Your task to perform on an android device: toggle sleep mode Image 0: 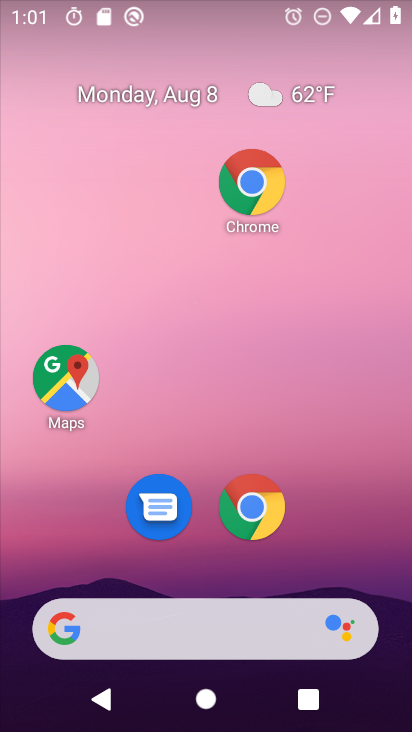
Step 0: drag from (363, 564) to (289, 3)
Your task to perform on an android device: toggle sleep mode Image 1: 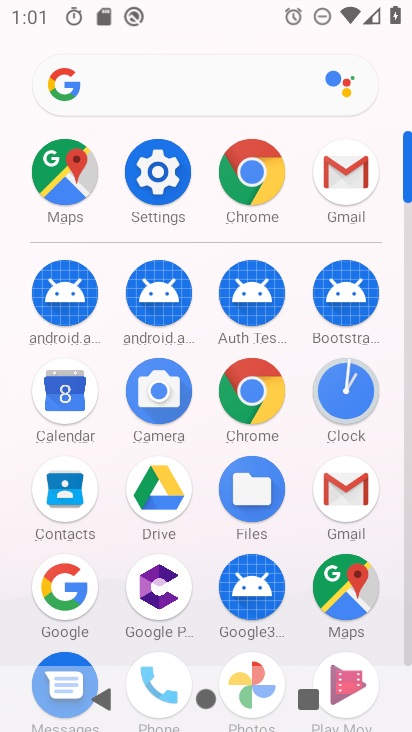
Step 1: click (169, 174)
Your task to perform on an android device: toggle sleep mode Image 2: 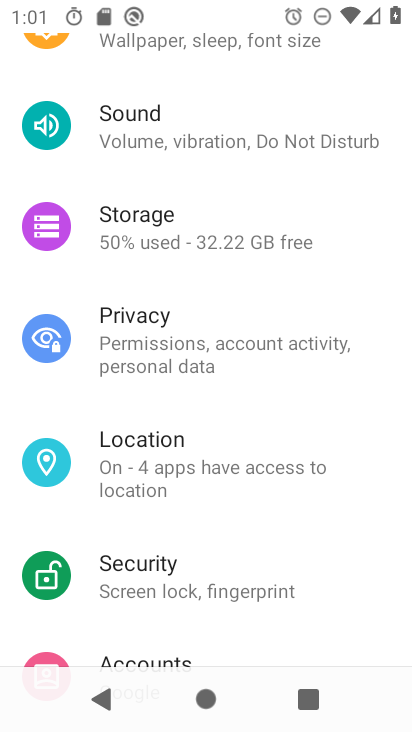
Step 2: drag from (255, 115) to (253, 548)
Your task to perform on an android device: toggle sleep mode Image 3: 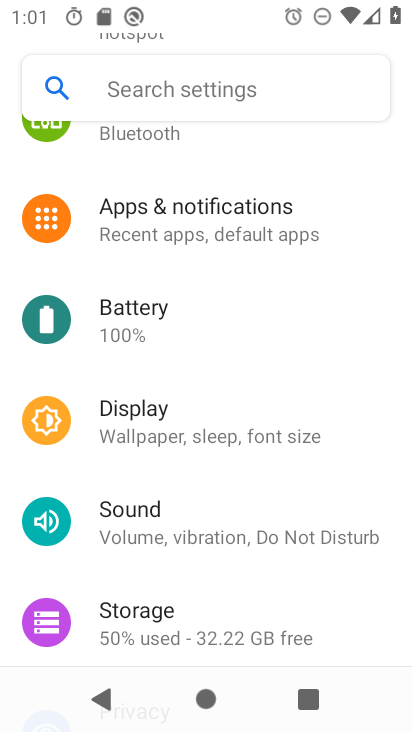
Step 3: click (143, 431)
Your task to perform on an android device: toggle sleep mode Image 4: 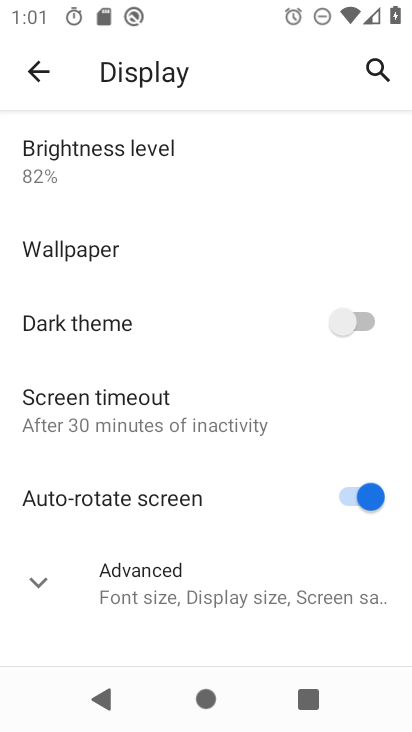
Step 4: click (175, 419)
Your task to perform on an android device: toggle sleep mode Image 5: 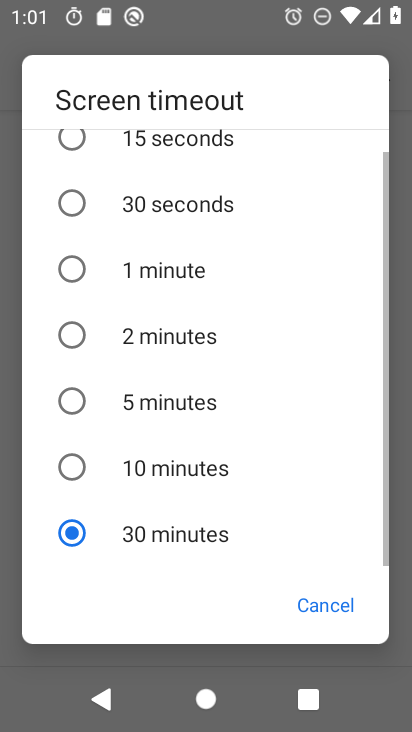
Step 5: click (150, 458)
Your task to perform on an android device: toggle sleep mode Image 6: 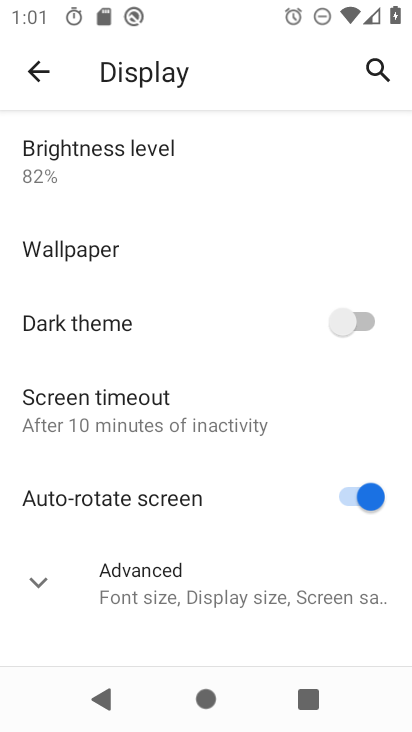
Step 6: task complete